Your task to perform on an android device: find snoozed emails in the gmail app Image 0: 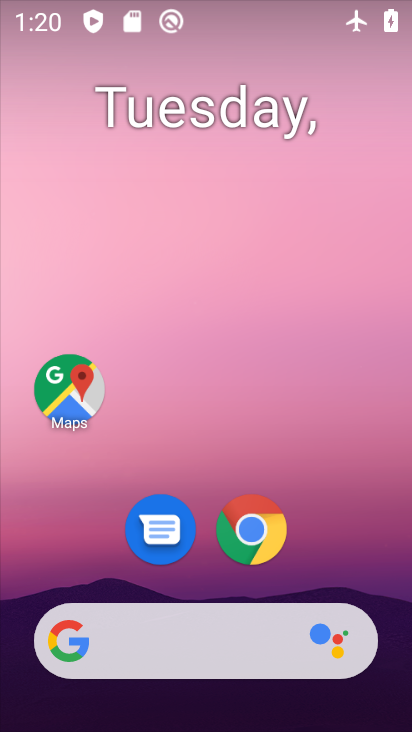
Step 0: drag from (388, 540) to (315, 85)
Your task to perform on an android device: find snoozed emails in the gmail app Image 1: 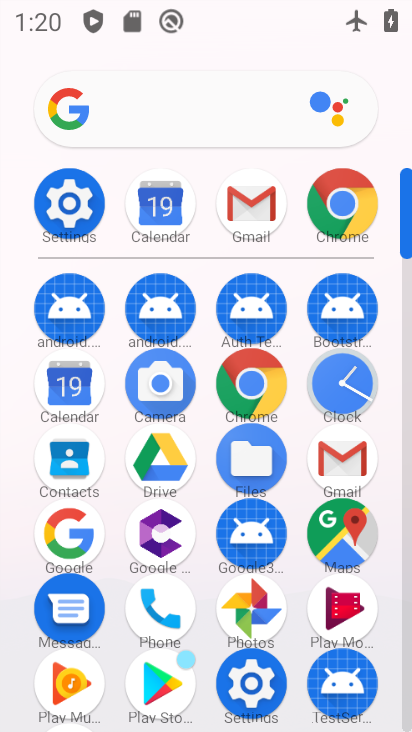
Step 1: click (252, 224)
Your task to perform on an android device: find snoozed emails in the gmail app Image 2: 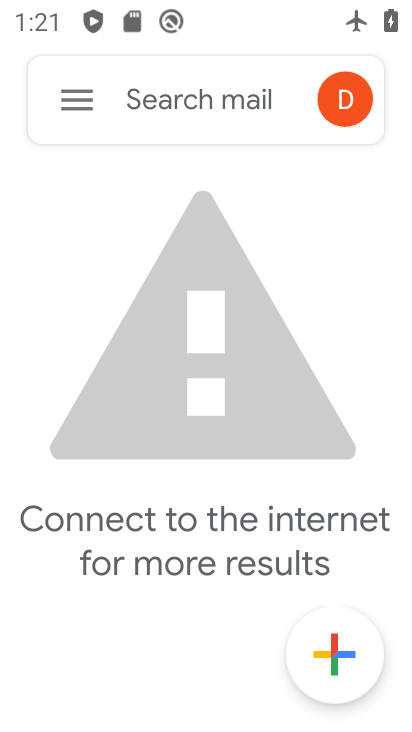
Step 2: click (61, 102)
Your task to perform on an android device: find snoozed emails in the gmail app Image 3: 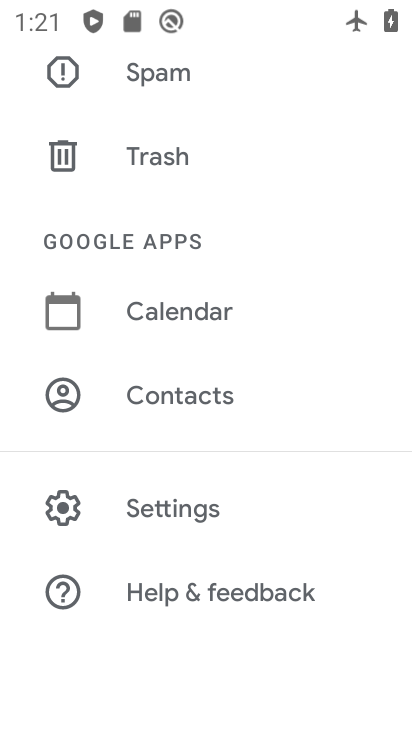
Step 3: drag from (200, 157) to (251, 588)
Your task to perform on an android device: find snoozed emails in the gmail app Image 4: 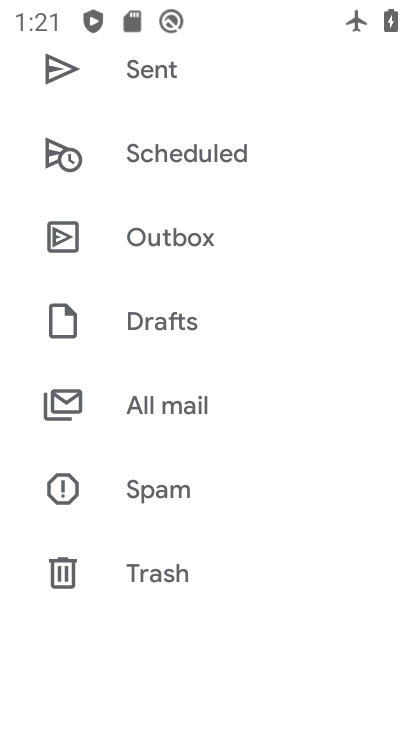
Step 4: drag from (320, 261) to (364, 637)
Your task to perform on an android device: find snoozed emails in the gmail app Image 5: 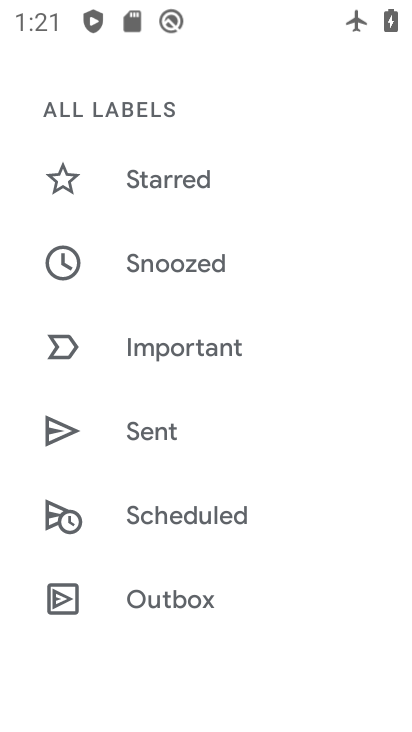
Step 5: click (320, 289)
Your task to perform on an android device: find snoozed emails in the gmail app Image 6: 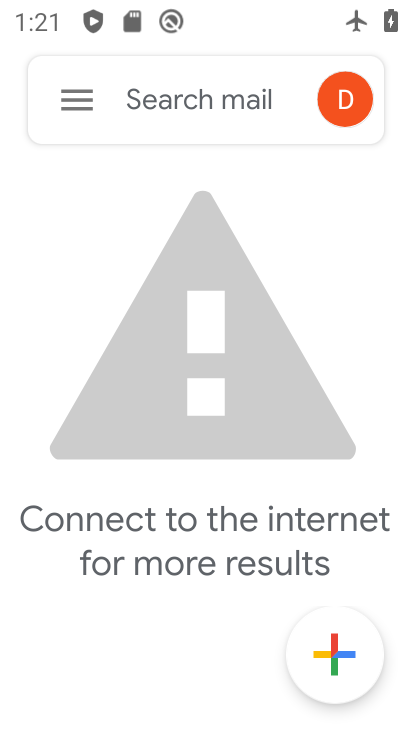
Step 6: task complete